Your task to perform on an android device: turn on location history Image 0: 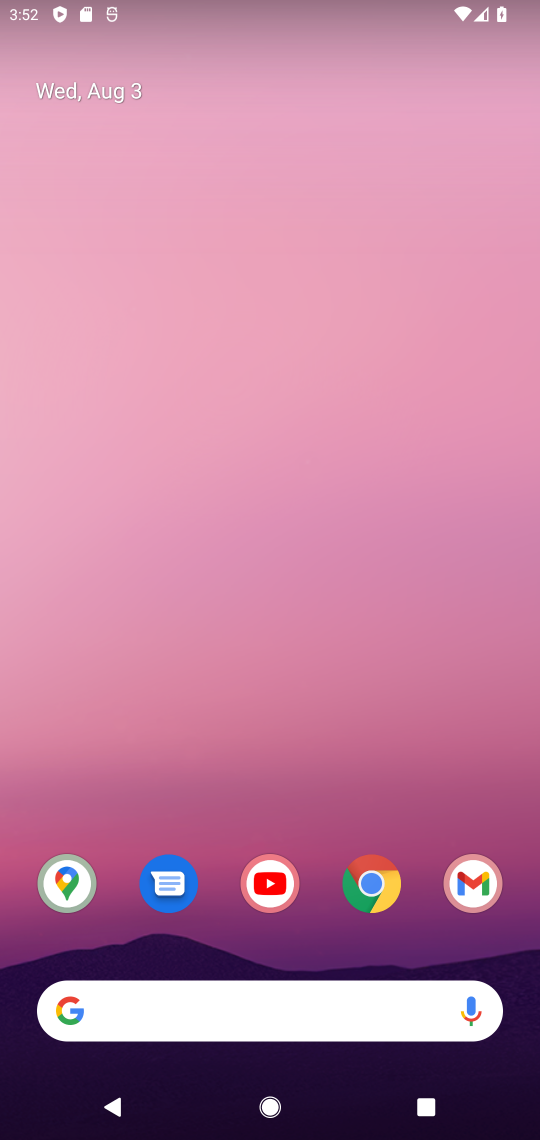
Step 0: drag from (298, 942) to (320, 27)
Your task to perform on an android device: turn on location history Image 1: 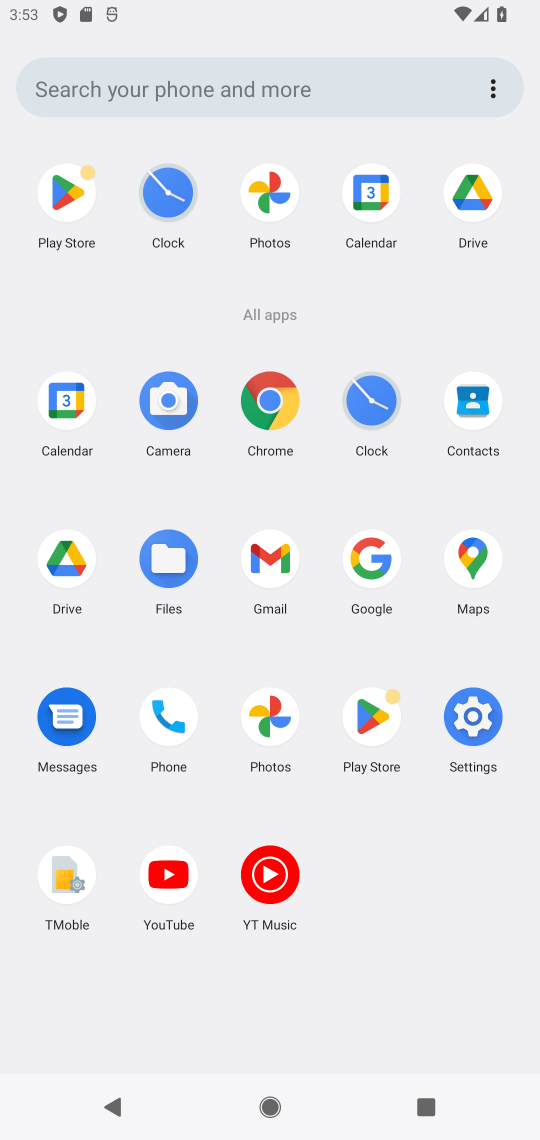
Step 1: click (477, 741)
Your task to perform on an android device: turn on location history Image 2: 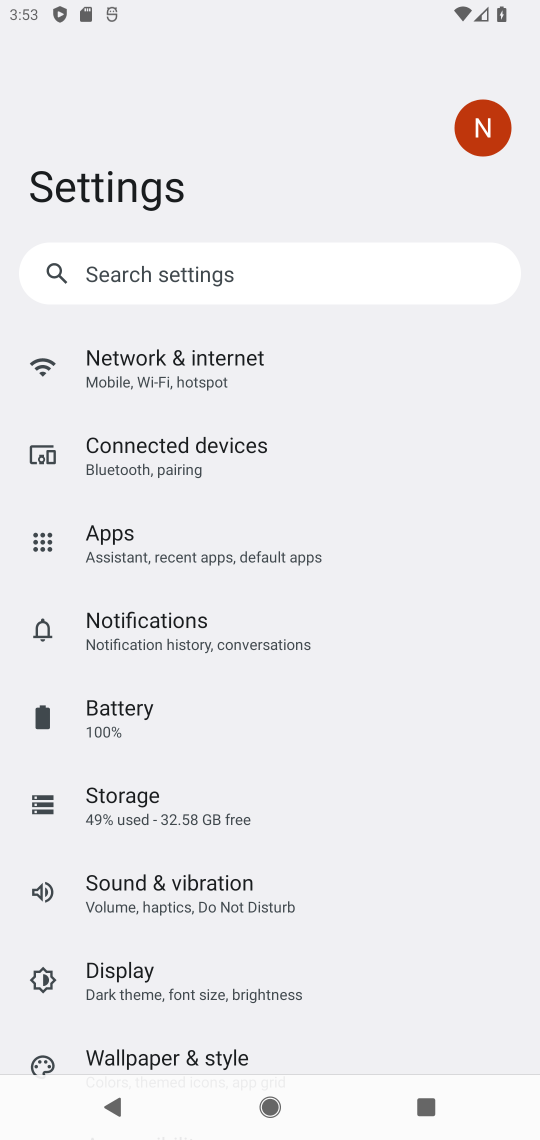
Step 2: drag from (164, 957) to (166, 584)
Your task to perform on an android device: turn on location history Image 3: 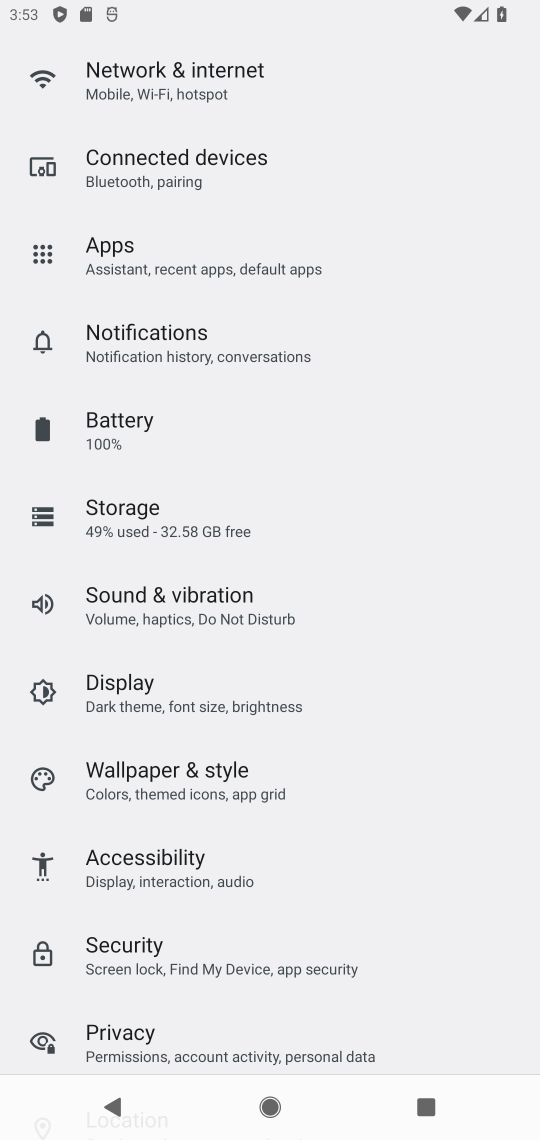
Step 3: drag from (188, 910) to (195, 602)
Your task to perform on an android device: turn on location history Image 4: 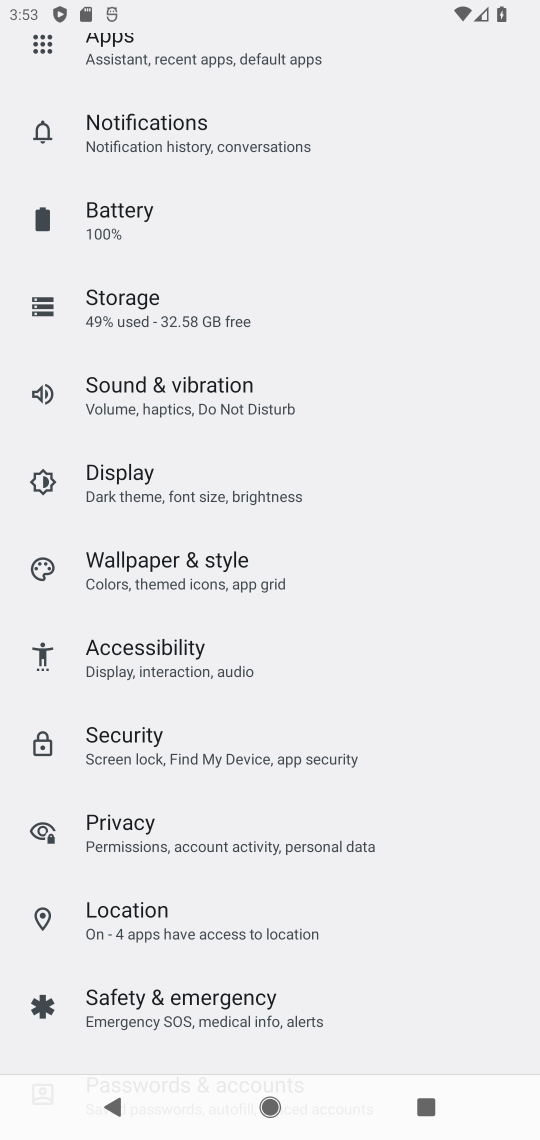
Step 4: click (170, 929)
Your task to perform on an android device: turn on location history Image 5: 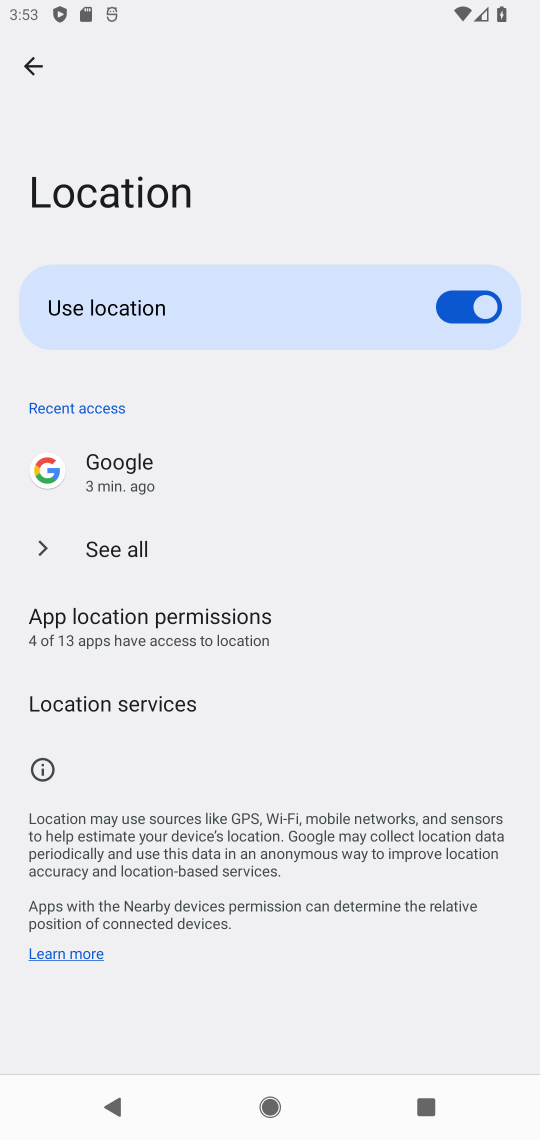
Step 5: task complete